Your task to perform on an android device: Open Google Maps Image 0: 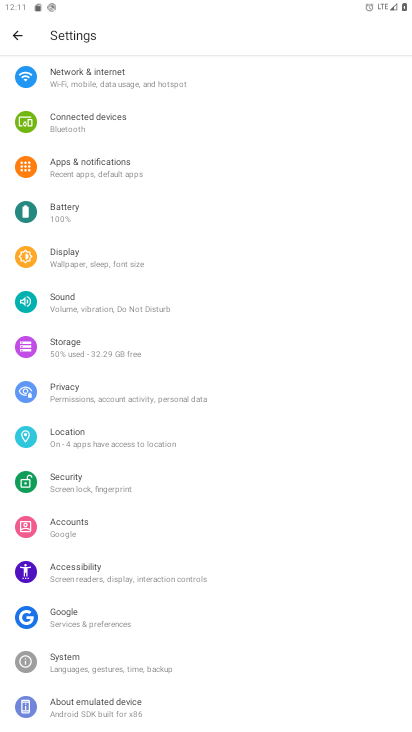
Step 0: press home button
Your task to perform on an android device: Open Google Maps Image 1: 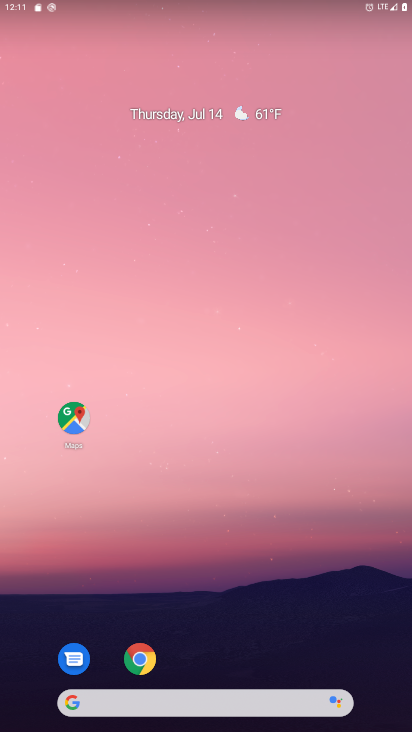
Step 1: drag from (223, 662) to (226, 5)
Your task to perform on an android device: Open Google Maps Image 2: 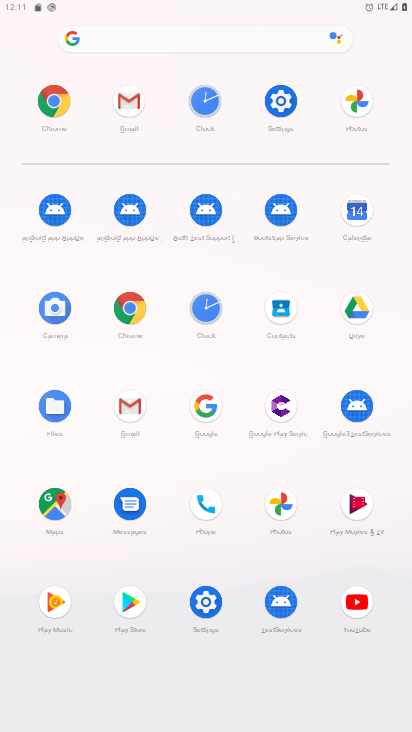
Step 2: click (53, 503)
Your task to perform on an android device: Open Google Maps Image 3: 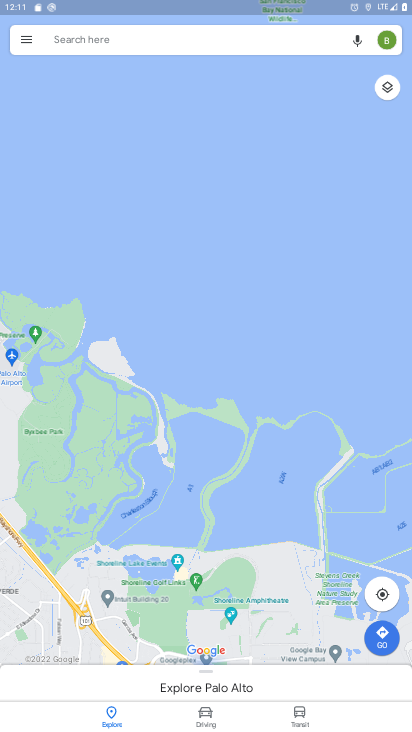
Step 3: task complete